Your task to perform on an android device: all mails in gmail Image 0: 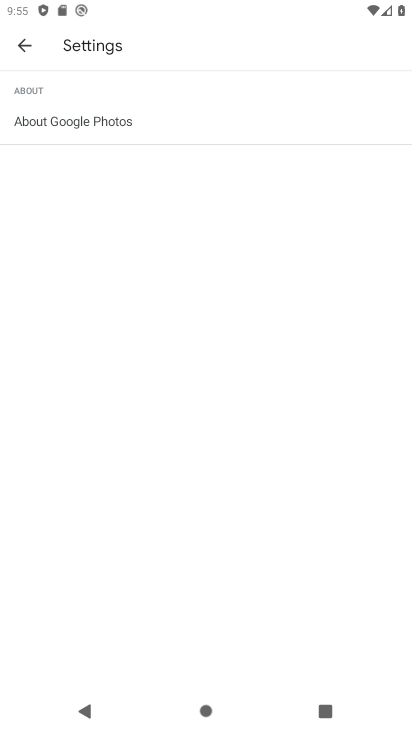
Step 0: press home button
Your task to perform on an android device: all mails in gmail Image 1: 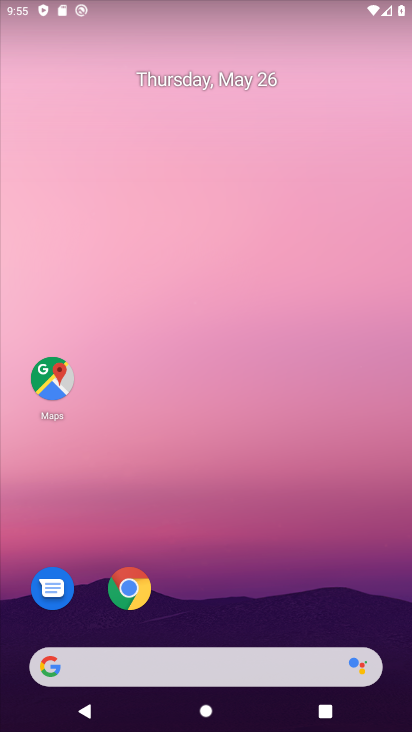
Step 1: drag from (153, 584) to (179, 254)
Your task to perform on an android device: all mails in gmail Image 2: 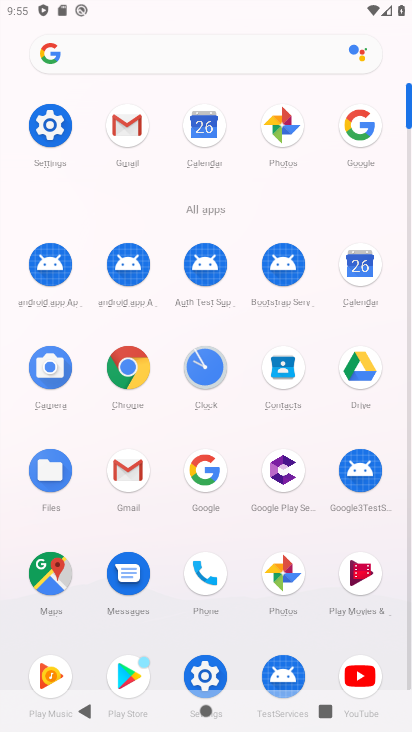
Step 2: click (138, 127)
Your task to perform on an android device: all mails in gmail Image 3: 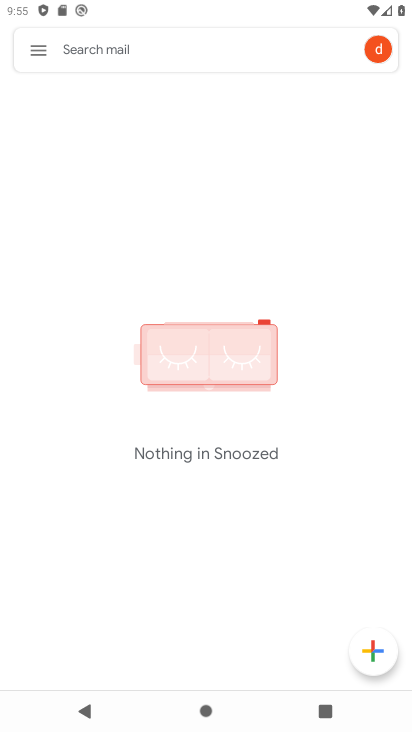
Step 3: click (28, 52)
Your task to perform on an android device: all mails in gmail Image 4: 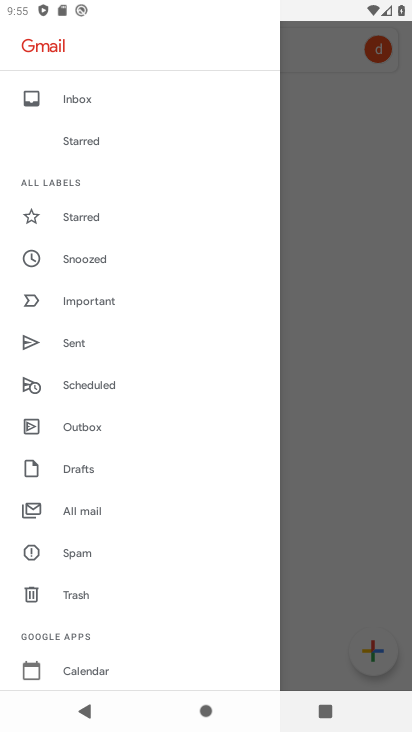
Step 4: click (84, 515)
Your task to perform on an android device: all mails in gmail Image 5: 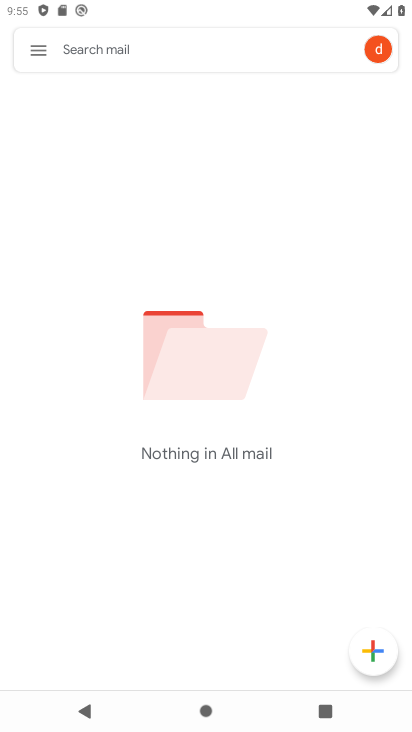
Step 5: task complete